Your task to perform on an android device: Open settings Image 0: 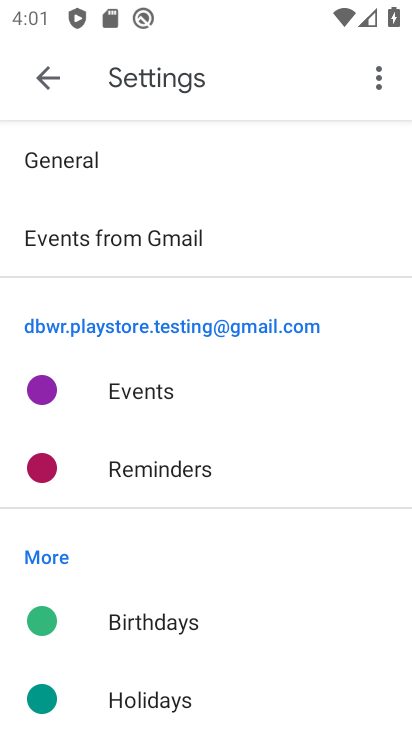
Step 0: press home button
Your task to perform on an android device: Open settings Image 1: 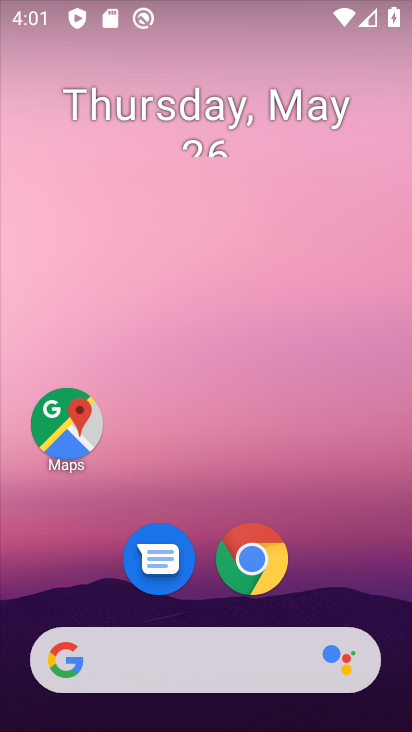
Step 1: drag from (311, 370) to (213, 39)
Your task to perform on an android device: Open settings Image 2: 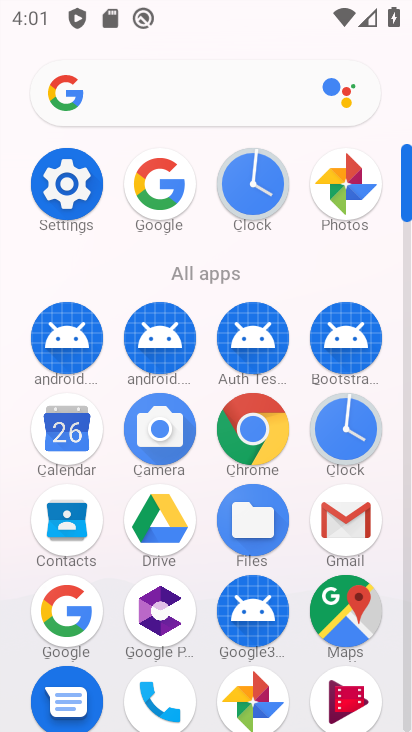
Step 2: click (46, 170)
Your task to perform on an android device: Open settings Image 3: 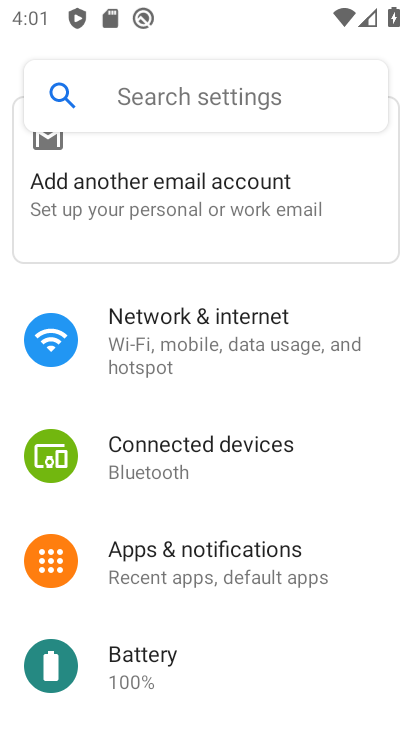
Step 3: task complete